Your task to perform on an android device: Go to calendar. Show me events next week Image 0: 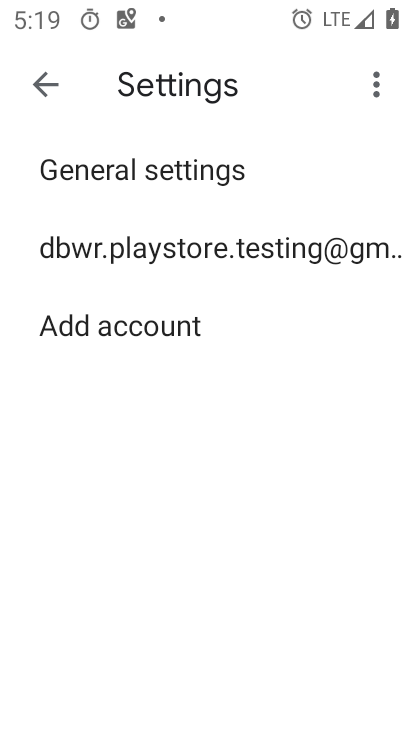
Step 0: press home button
Your task to perform on an android device: Go to calendar. Show me events next week Image 1: 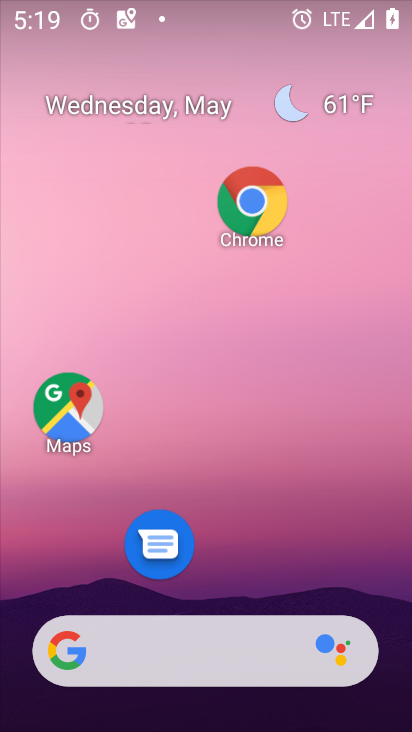
Step 1: drag from (182, 598) to (206, 228)
Your task to perform on an android device: Go to calendar. Show me events next week Image 2: 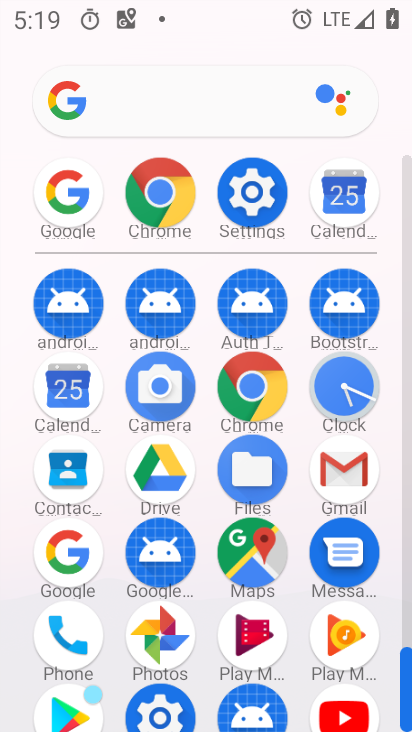
Step 2: click (357, 210)
Your task to perform on an android device: Go to calendar. Show me events next week Image 3: 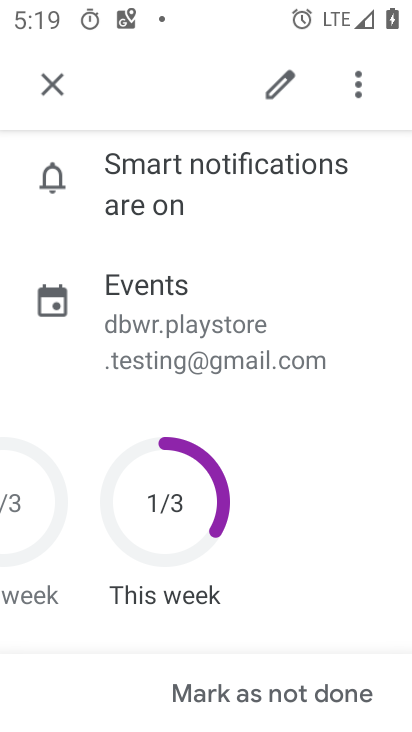
Step 3: drag from (266, 616) to (294, 191)
Your task to perform on an android device: Go to calendar. Show me events next week Image 4: 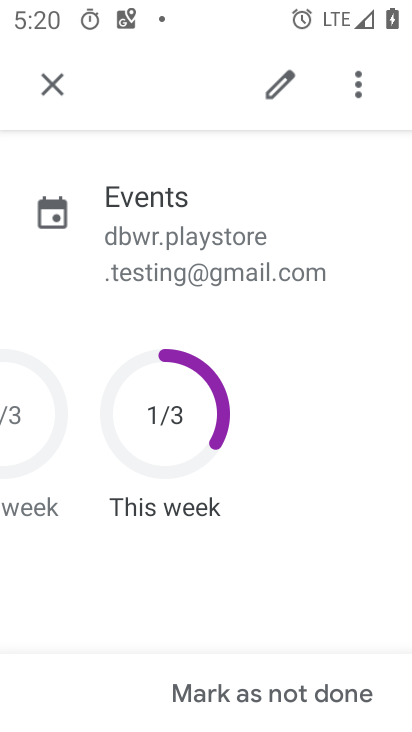
Step 4: click (74, 80)
Your task to perform on an android device: Go to calendar. Show me events next week Image 5: 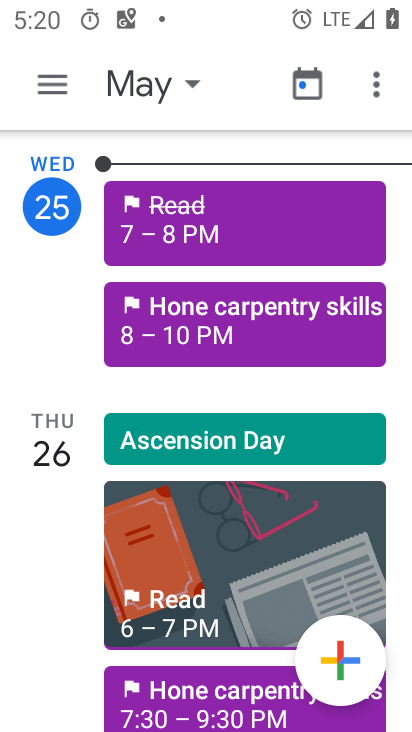
Step 5: click (141, 94)
Your task to perform on an android device: Go to calendar. Show me events next week Image 6: 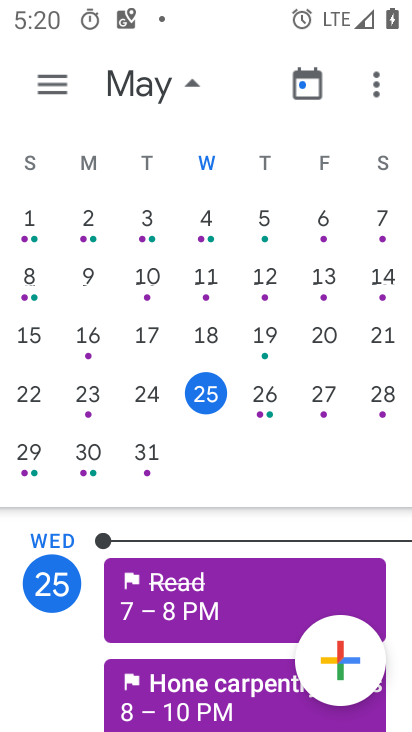
Step 6: click (94, 458)
Your task to perform on an android device: Go to calendar. Show me events next week Image 7: 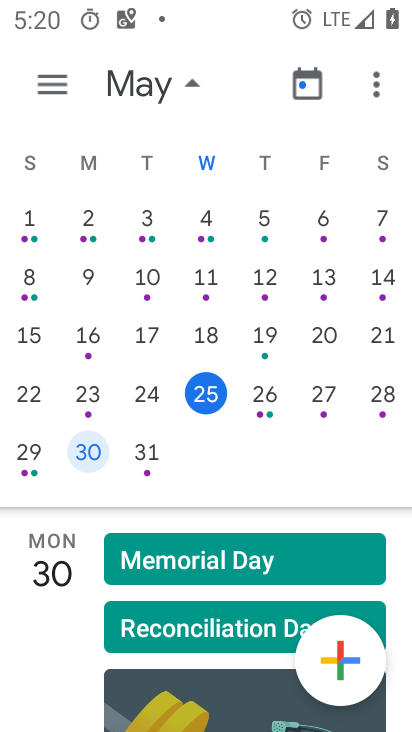
Step 7: task complete